Your task to perform on an android device: Show me popular videos on Youtube Image 0: 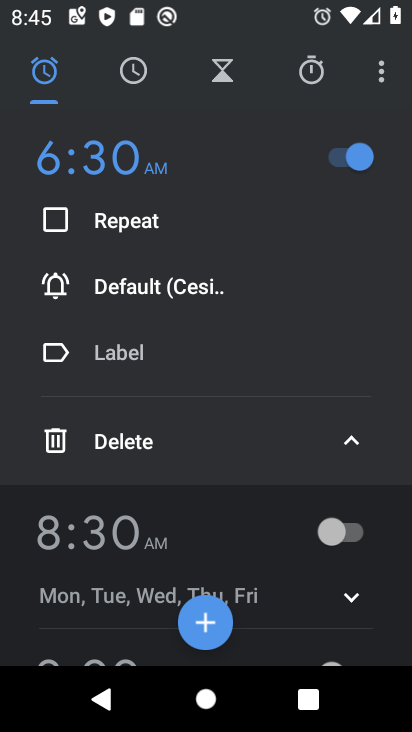
Step 0: press home button
Your task to perform on an android device: Show me popular videos on Youtube Image 1: 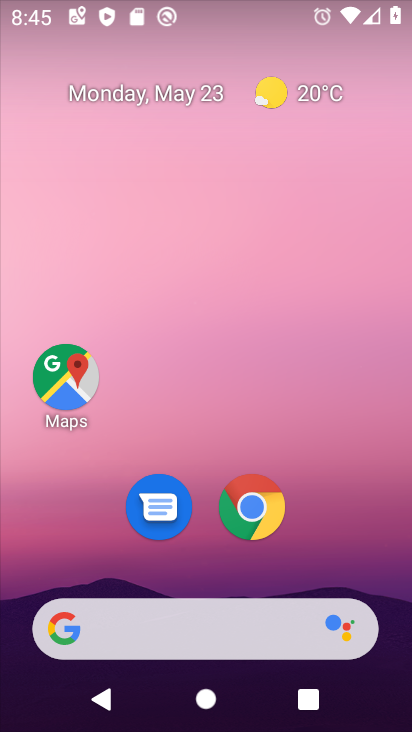
Step 1: drag from (341, 588) to (334, 23)
Your task to perform on an android device: Show me popular videos on Youtube Image 2: 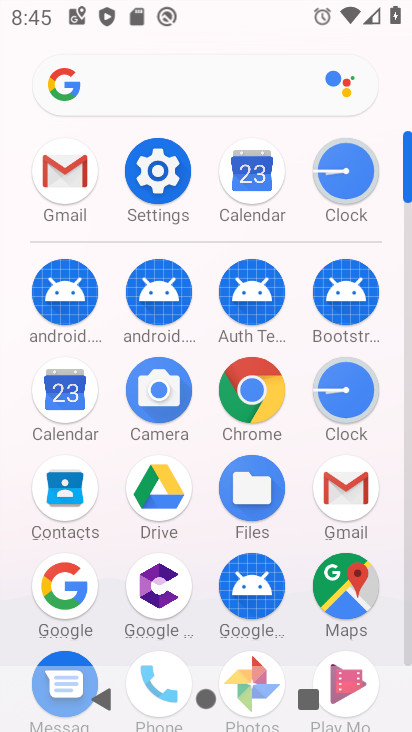
Step 2: click (406, 541)
Your task to perform on an android device: Show me popular videos on Youtube Image 3: 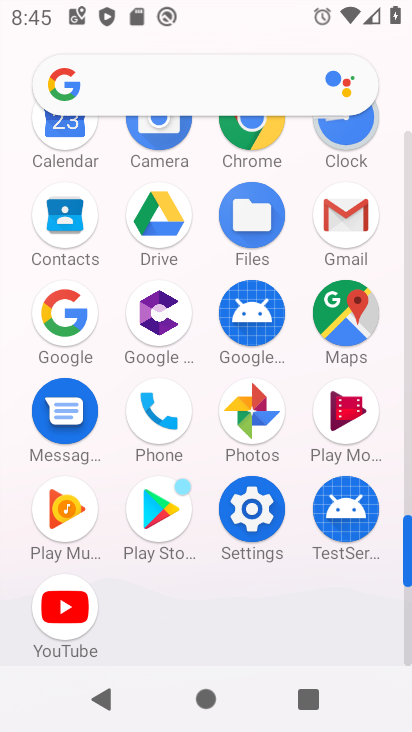
Step 3: click (82, 603)
Your task to perform on an android device: Show me popular videos on Youtube Image 4: 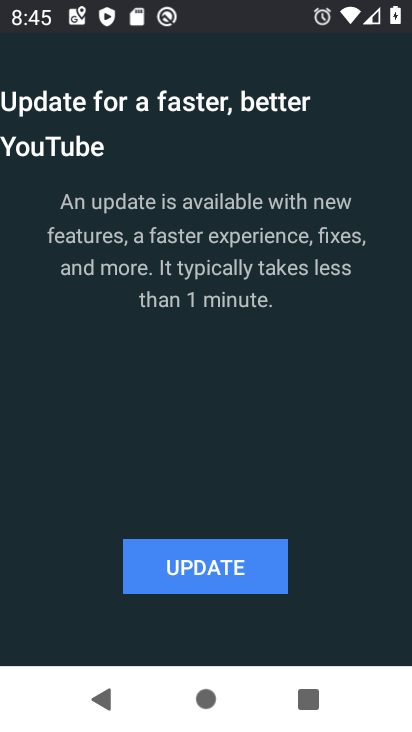
Step 4: click (150, 579)
Your task to perform on an android device: Show me popular videos on Youtube Image 5: 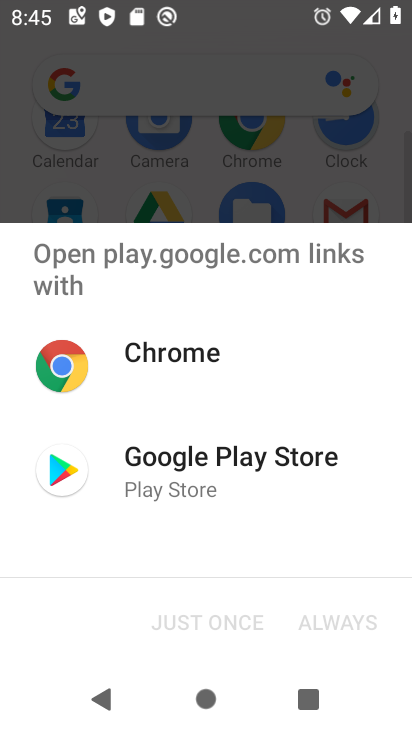
Step 5: click (133, 477)
Your task to perform on an android device: Show me popular videos on Youtube Image 6: 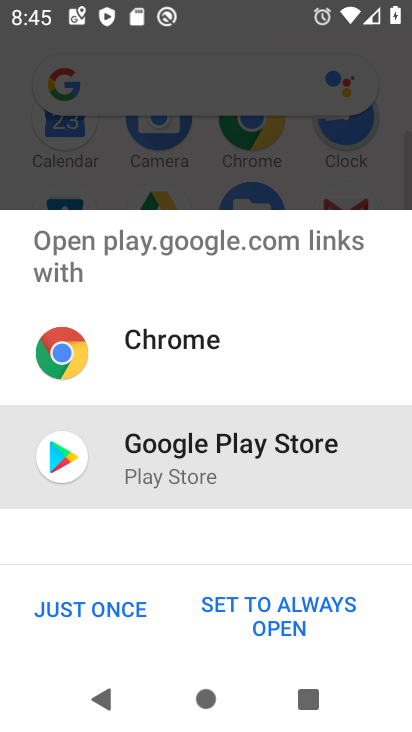
Step 6: click (98, 608)
Your task to perform on an android device: Show me popular videos on Youtube Image 7: 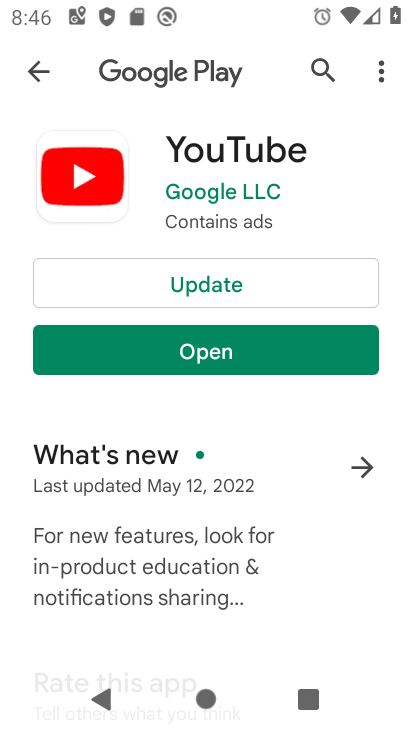
Step 7: click (177, 291)
Your task to perform on an android device: Show me popular videos on Youtube Image 8: 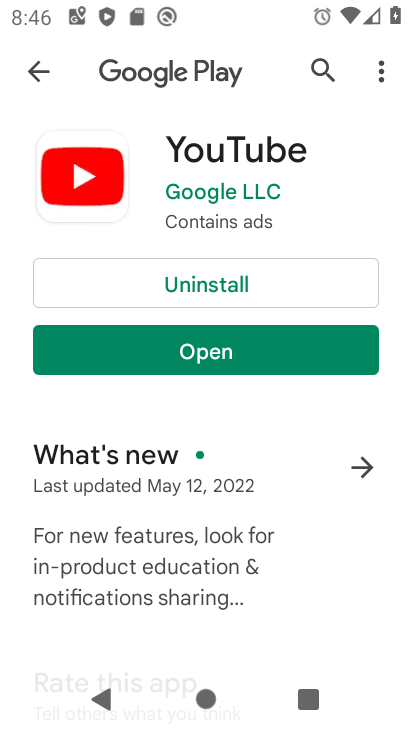
Step 8: click (229, 361)
Your task to perform on an android device: Show me popular videos on Youtube Image 9: 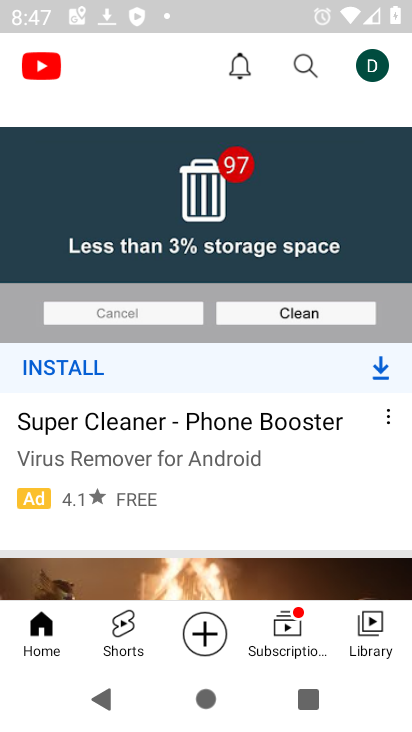
Step 9: click (21, 653)
Your task to perform on an android device: Show me popular videos on Youtube Image 10: 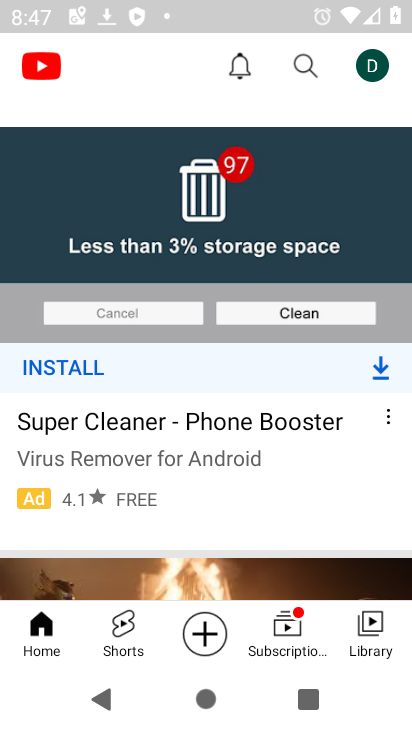
Step 10: task complete